Your task to perform on an android device: Is it going to rain tomorrow? Image 0: 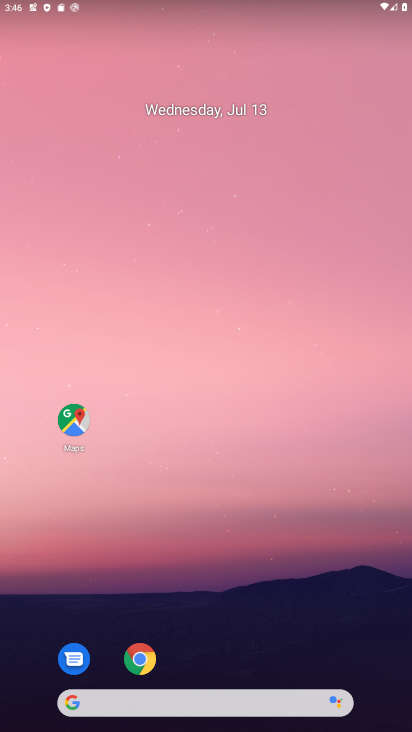
Step 0: click (205, 688)
Your task to perform on an android device: Is it going to rain tomorrow? Image 1: 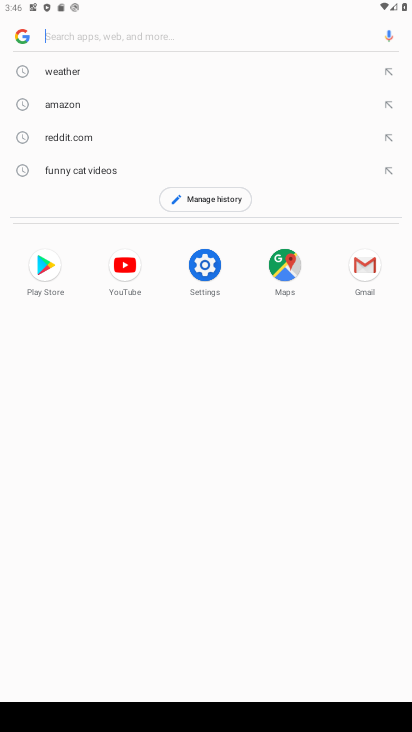
Step 1: click (83, 69)
Your task to perform on an android device: Is it going to rain tomorrow? Image 2: 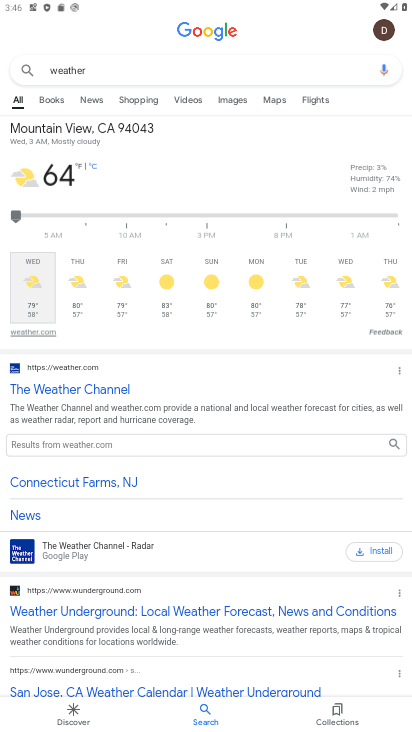
Step 2: click (88, 279)
Your task to perform on an android device: Is it going to rain tomorrow? Image 3: 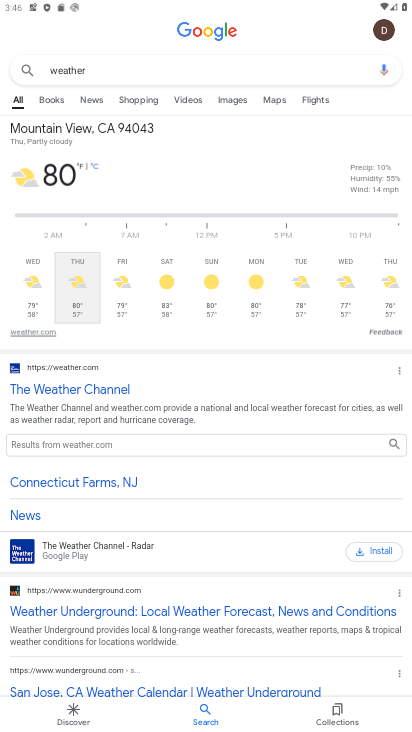
Step 3: task complete